Your task to perform on an android device: Open the stopwatch Image 0: 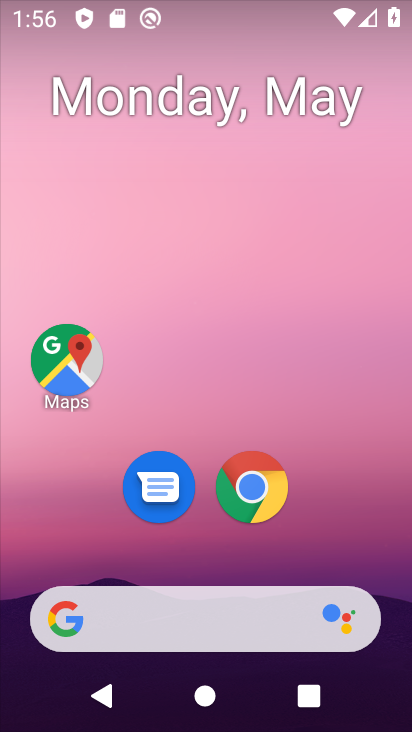
Step 0: drag from (357, 502) to (310, 98)
Your task to perform on an android device: Open the stopwatch Image 1: 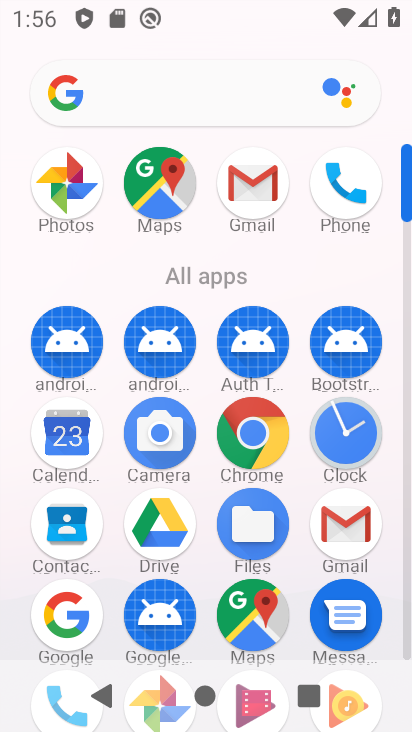
Step 1: click (356, 448)
Your task to perform on an android device: Open the stopwatch Image 2: 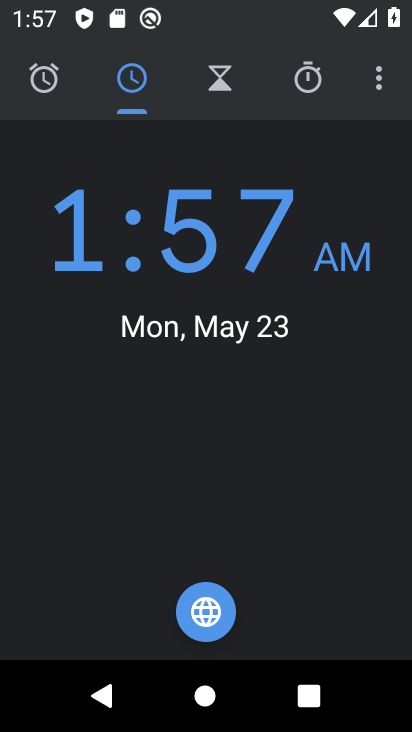
Step 2: click (318, 78)
Your task to perform on an android device: Open the stopwatch Image 3: 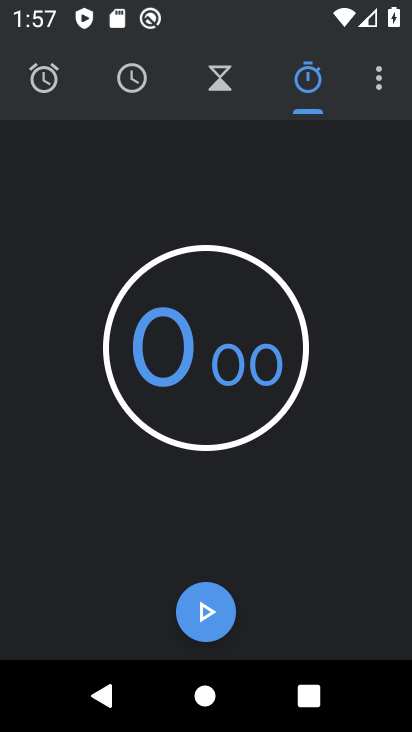
Step 3: task complete